Your task to perform on an android device: turn off wifi Image 0: 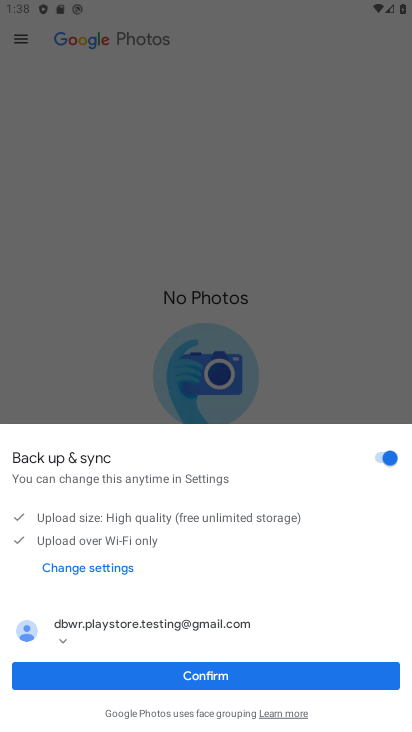
Step 0: press home button
Your task to perform on an android device: turn off wifi Image 1: 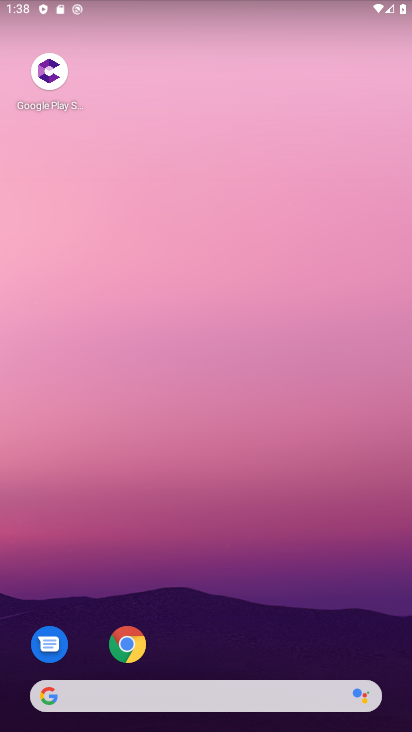
Step 1: drag from (21, 8) to (204, 646)
Your task to perform on an android device: turn off wifi Image 2: 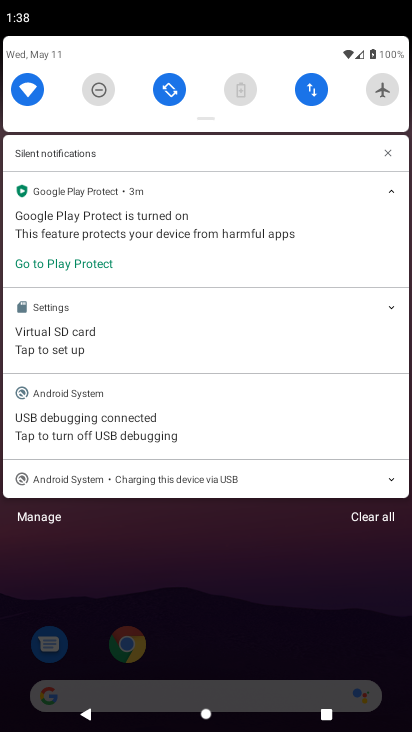
Step 2: click (24, 97)
Your task to perform on an android device: turn off wifi Image 3: 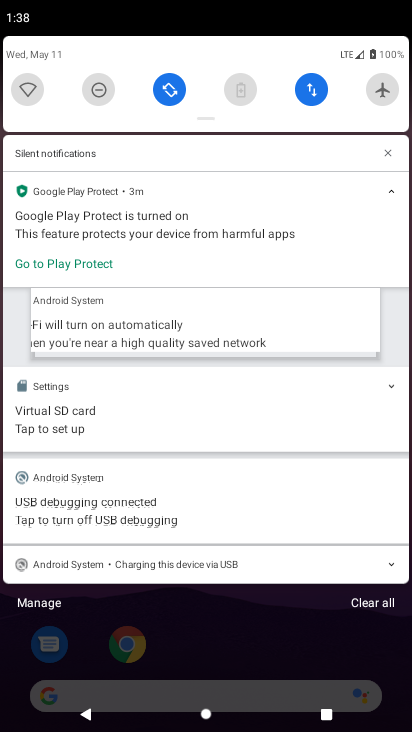
Step 3: task complete